Your task to perform on an android device: Go to notification settings Image 0: 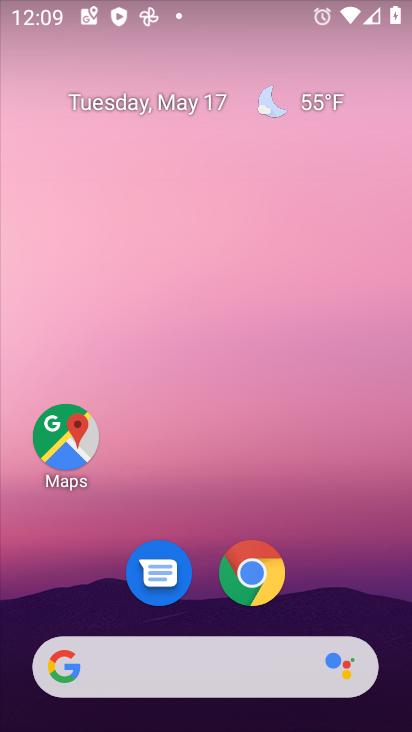
Step 0: drag from (348, 589) to (274, 199)
Your task to perform on an android device: Go to notification settings Image 1: 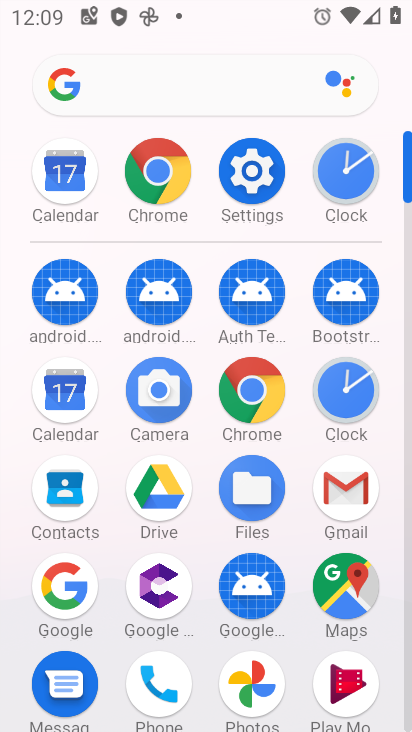
Step 1: click (247, 177)
Your task to perform on an android device: Go to notification settings Image 2: 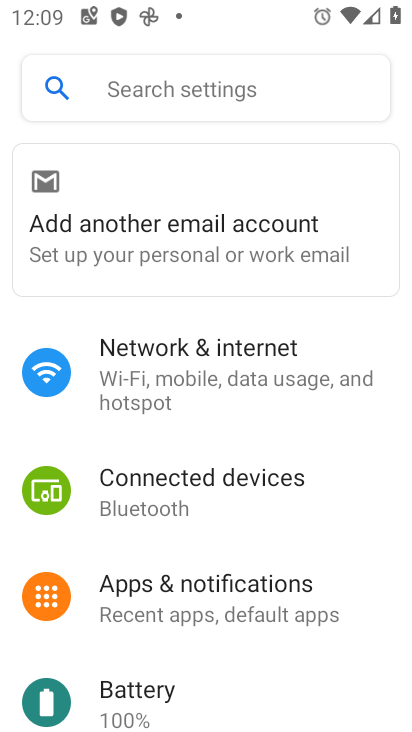
Step 2: click (203, 607)
Your task to perform on an android device: Go to notification settings Image 3: 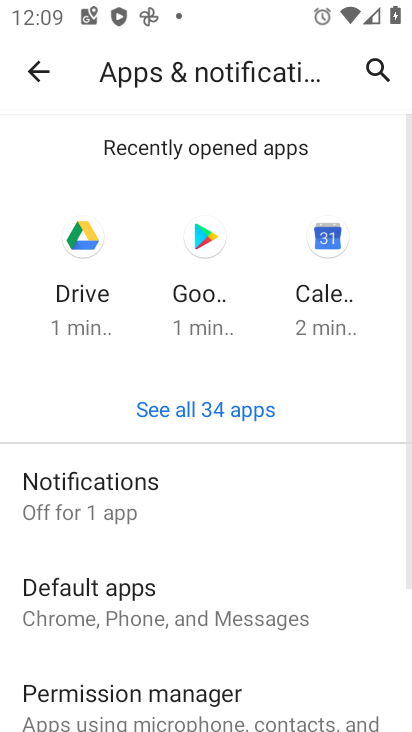
Step 3: click (116, 481)
Your task to perform on an android device: Go to notification settings Image 4: 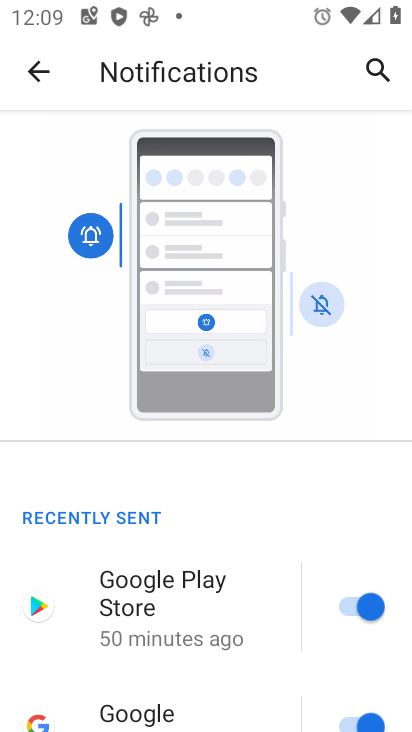
Step 4: task complete